Your task to perform on an android device: Do I have any events this weekend? Image 0: 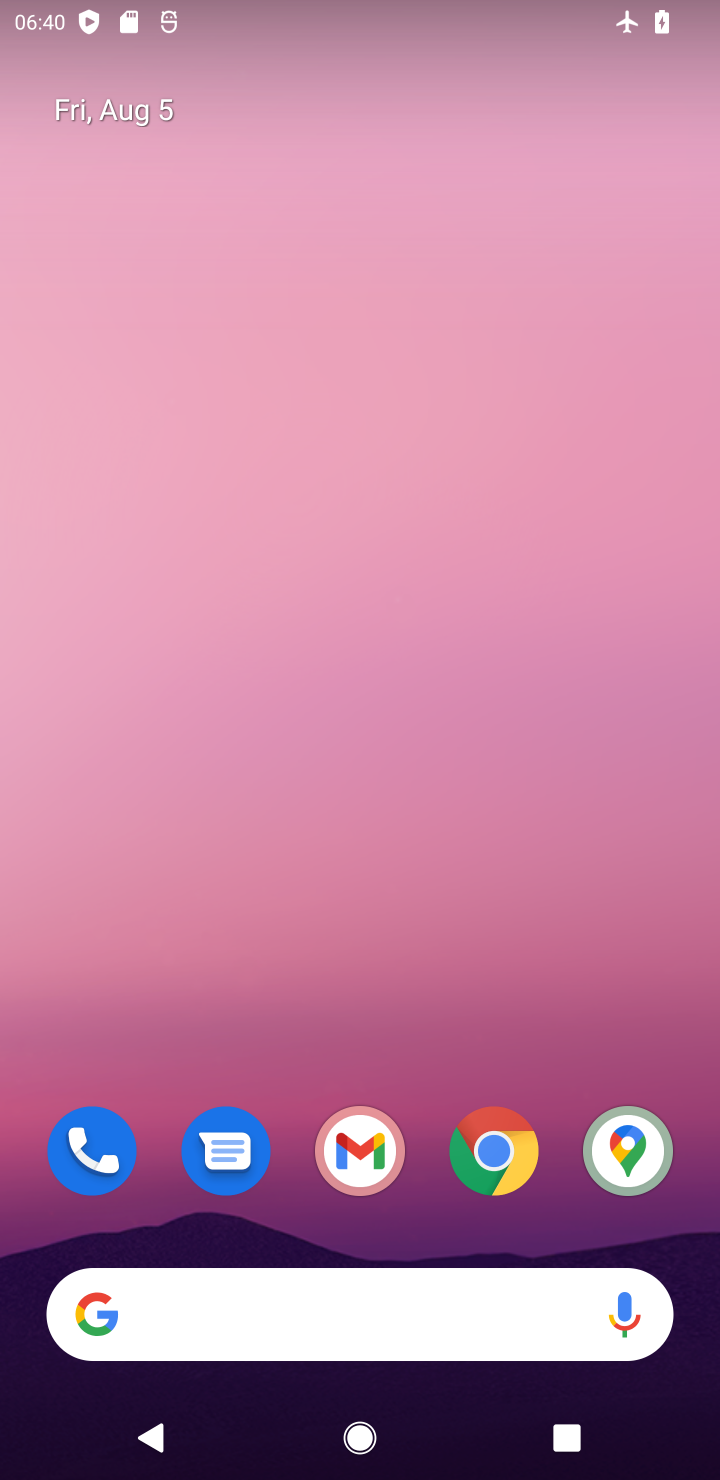
Step 0: drag from (486, 1202) to (555, 23)
Your task to perform on an android device: Do I have any events this weekend? Image 1: 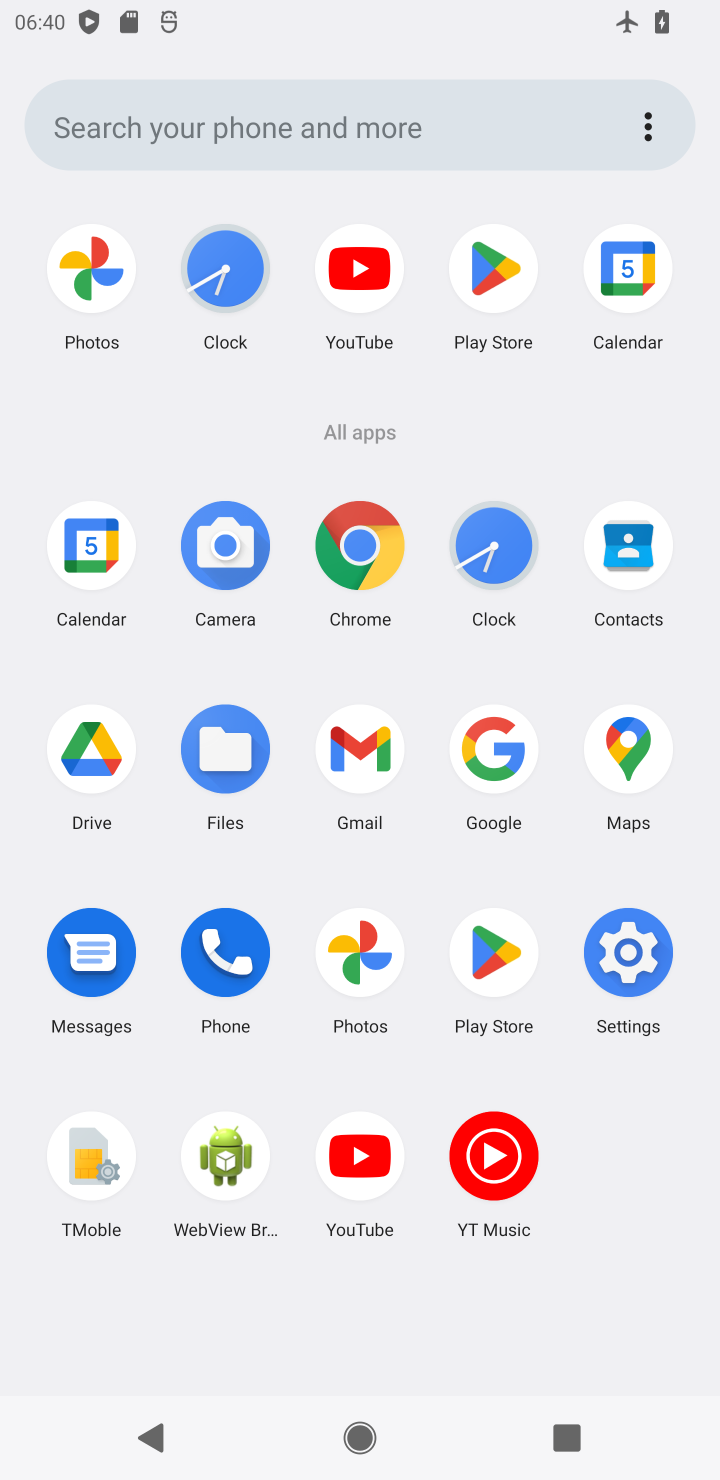
Step 1: click (612, 262)
Your task to perform on an android device: Do I have any events this weekend? Image 2: 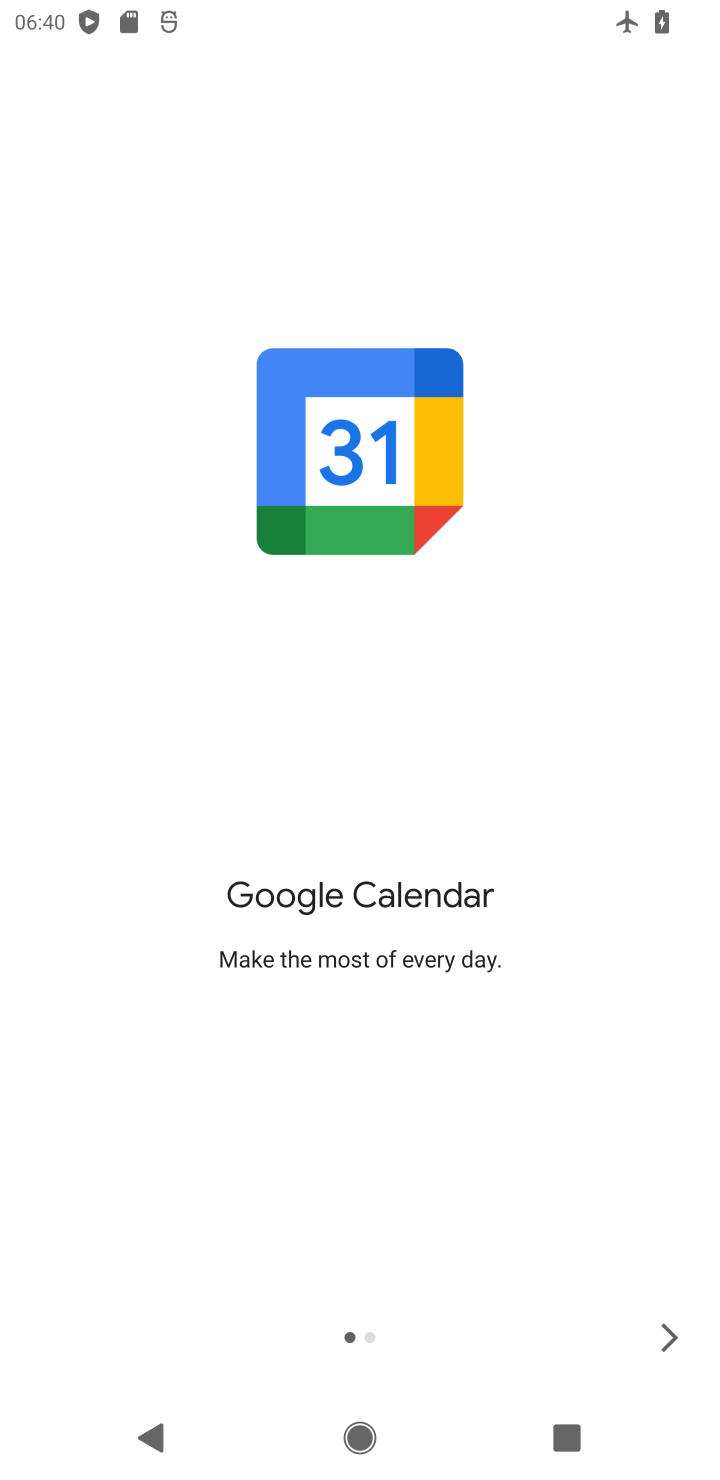
Step 2: click (656, 1333)
Your task to perform on an android device: Do I have any events this weekend? Image 3: 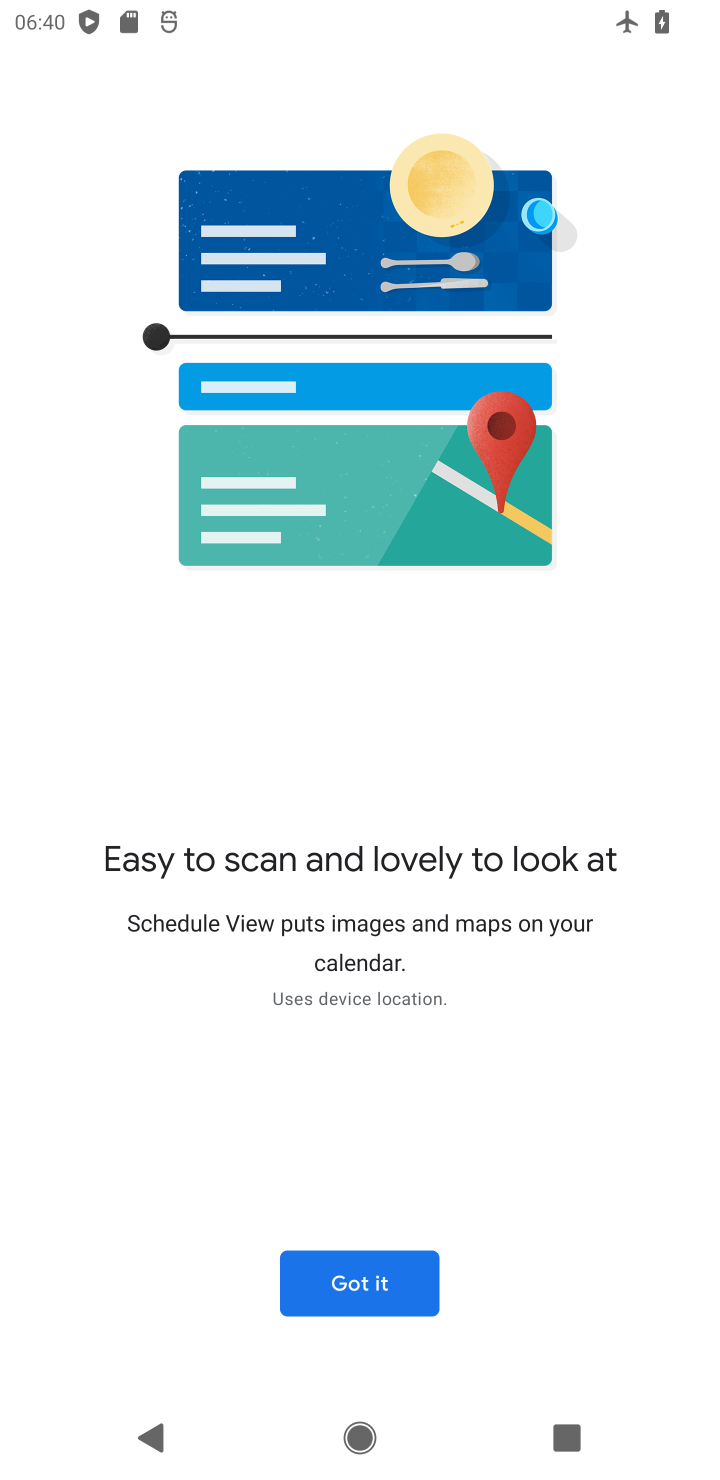
Step 3: click (428, 1258)
Your task to perform on an android device: Do I have any events this weekend? Image 4: 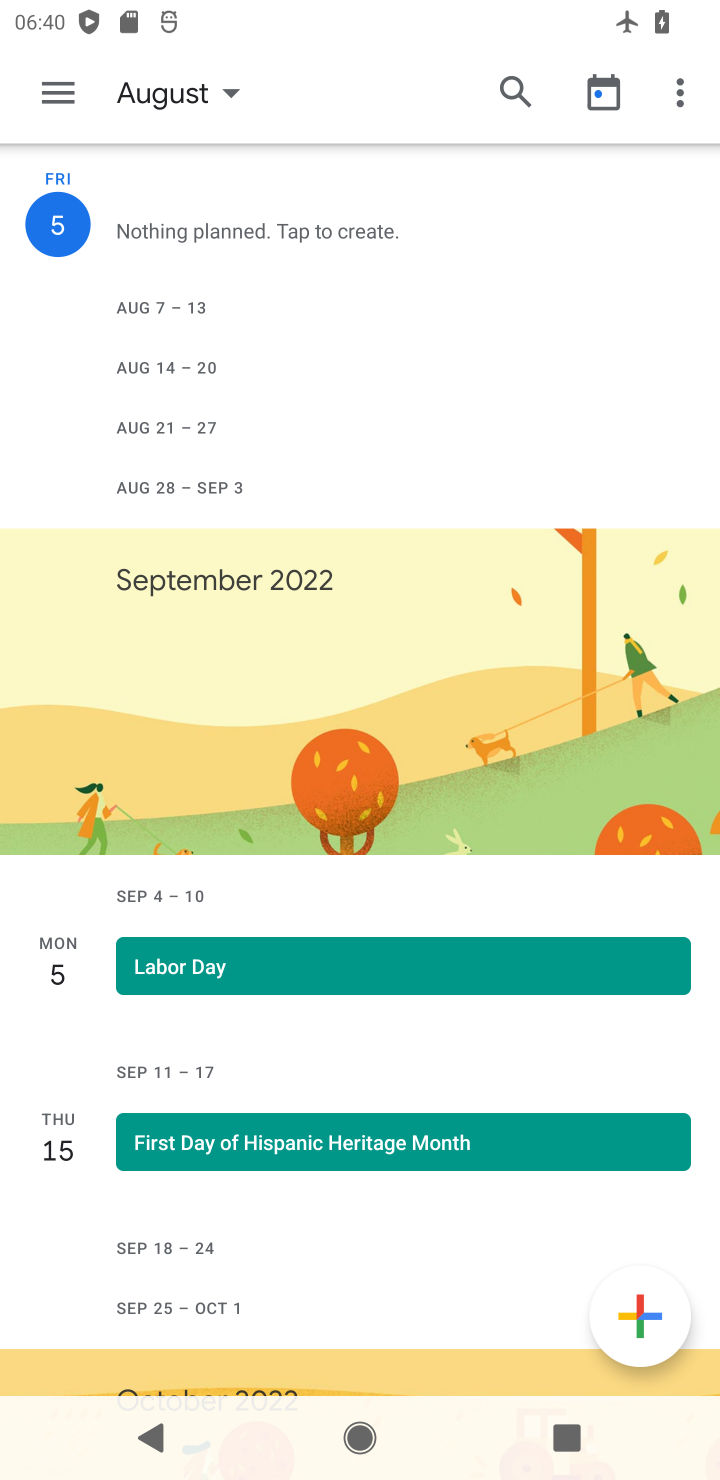
Step 4: click (48, 85)
Your task to perform on an android device: Do I have any events this weekend? Image 5: 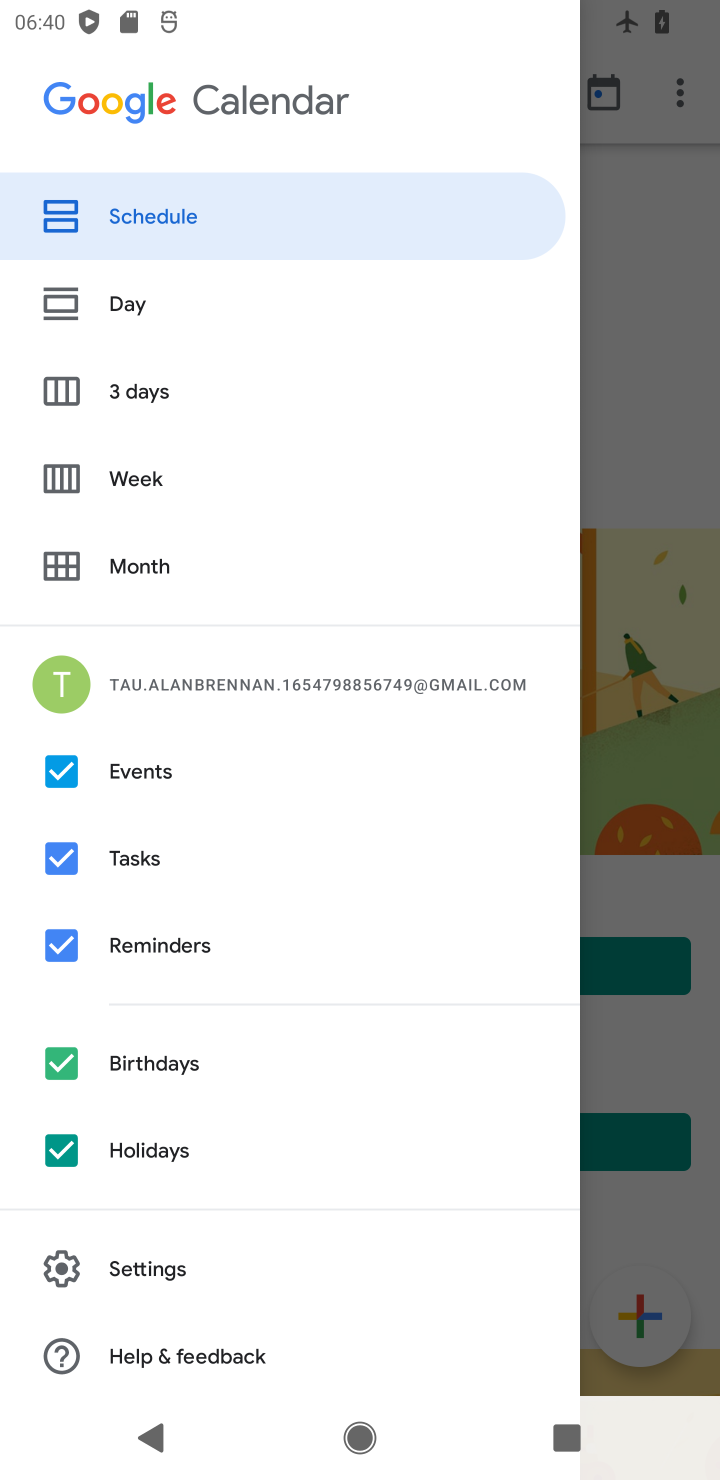
Step 5: click (132, 486)
Your task to perform on an android device: Do I have any events this weekend? Image 6: 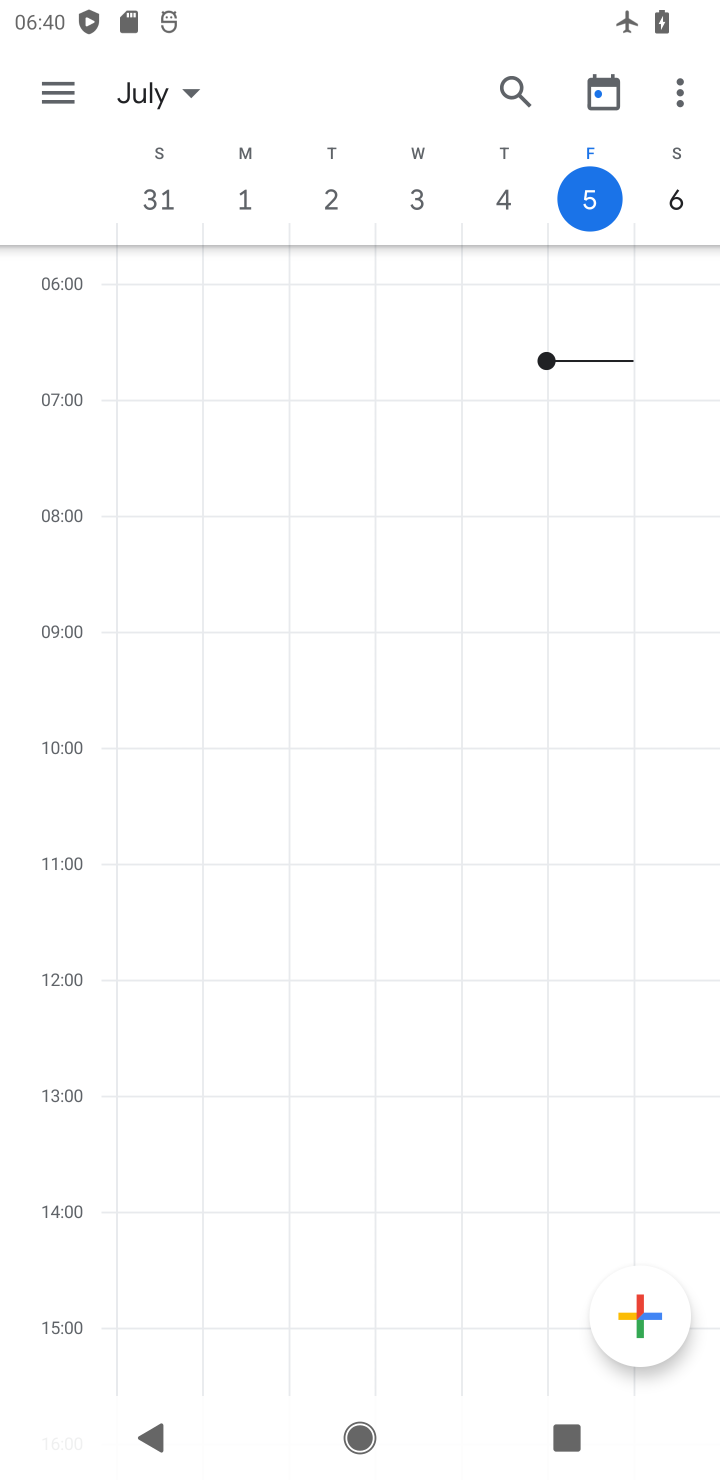
Step 6: task complete